Your task to perform on an android device: turn on javascript in the chrome app Image 0: 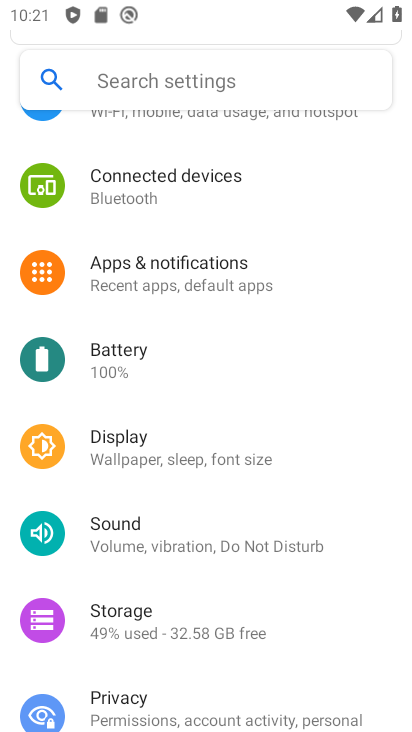
Step 0: press back button
Your task to perform on an android device: turn on javascript in the chrome app Image 1: 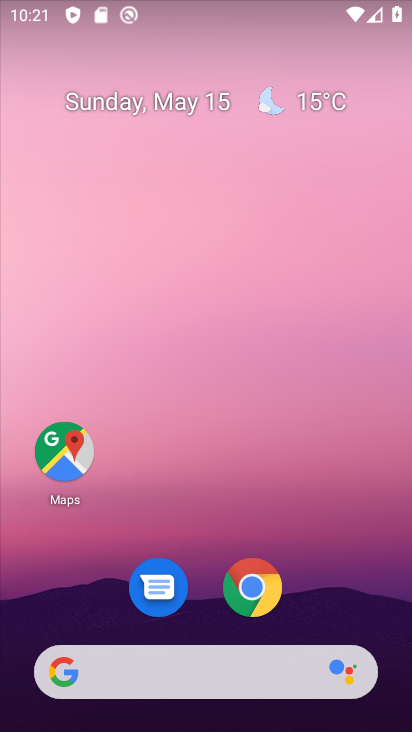
Step 1: click (275, 602)
Your task to perform on an android device: turn on javascript in the chrome app Image 2: 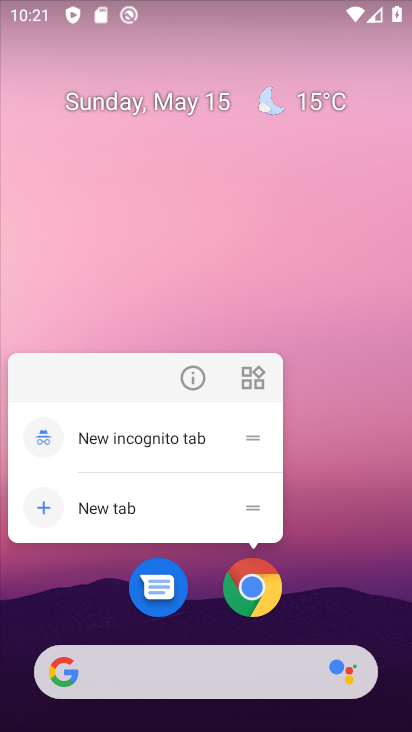
Step 2: click (256, 577)
Your task to perform on an android device: turn on javascript in the chrome app Image 3: 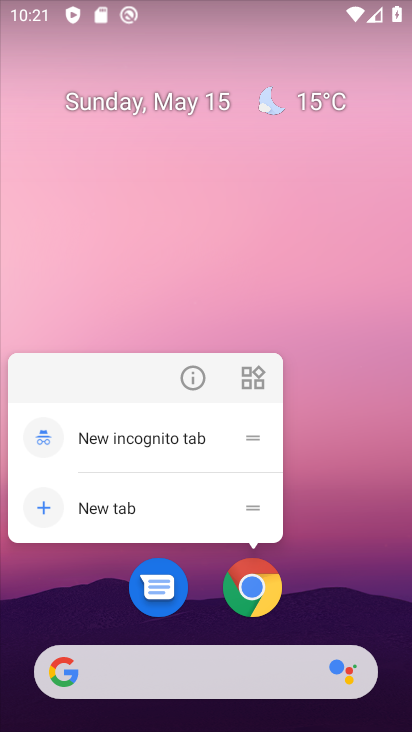
Step 3: click (249, 594)
Your task to perform on an android device: turn on javascript in the chrome app Image 4: 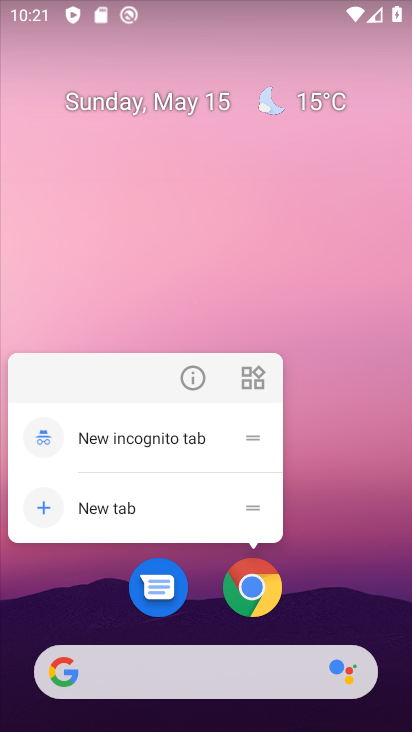
Step 4: click (248, 608)
Your task to perform on an android device: turn on javascript in the chrome app Image 5: 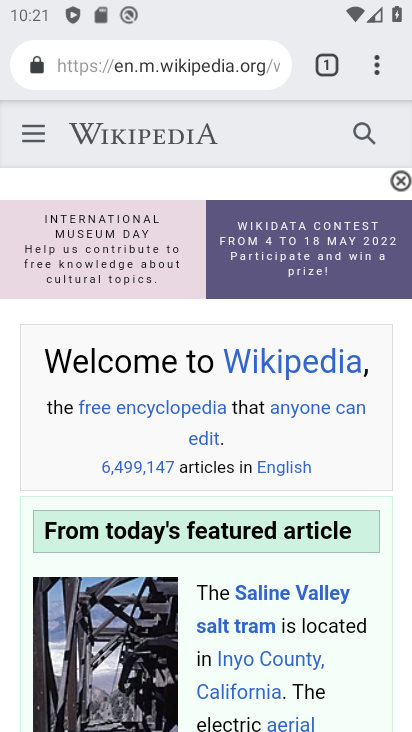
Step 5: drag from (381, 78) to (272, 661)
Your task to perform on an android device: turn on javascript in the chrome app Image 6: 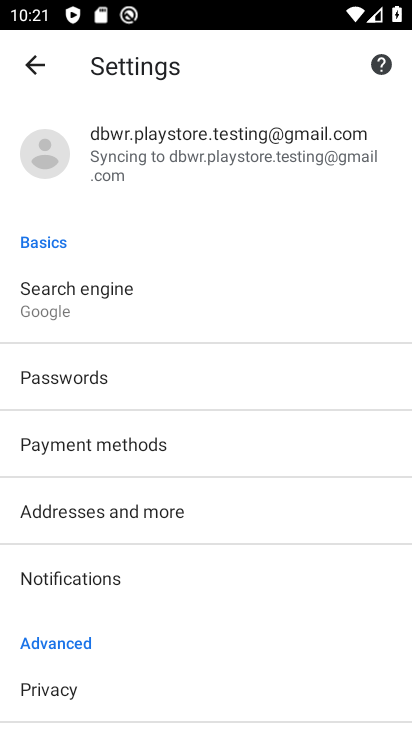
Step 6: drag from (199, 641) to (295, 274)
Your task to perform on an android device: turn on javascript in the chrome app Image 7: 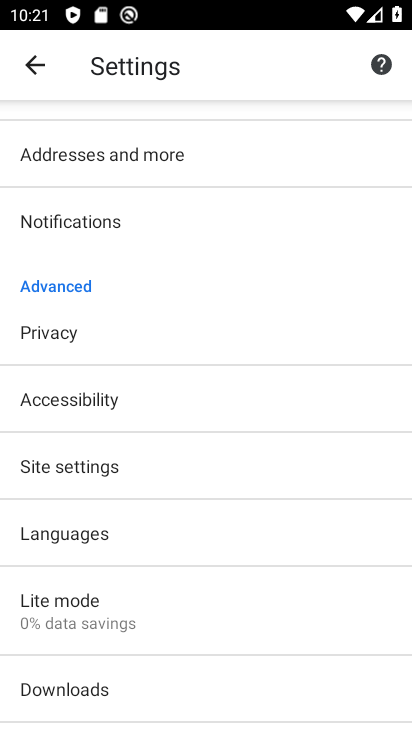
Step 7: drag from (214, 601) to (301, 296)
Your task to perform on an android device: turn on javascript in the chrome app Image 8: 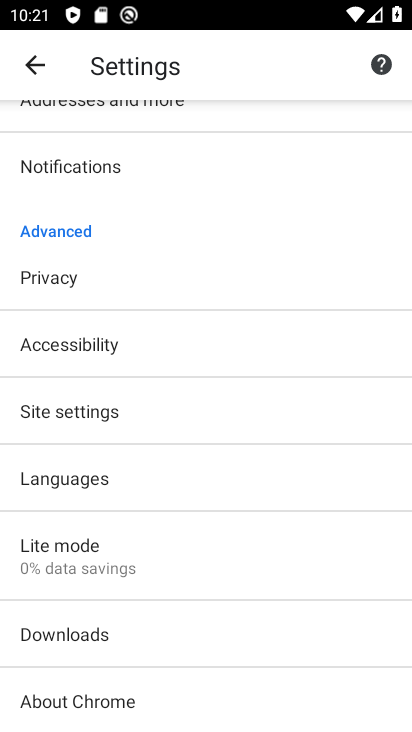
Step 8: click (170, 420)
Your task to perform on an android device: turn on javascript in the chrome app Image 9: 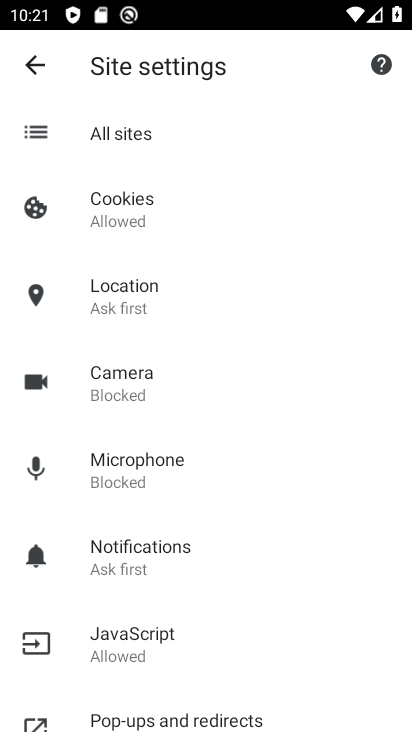
Step 9: click (195, 635)
Your task to perform on an android device: turn on javascript in the chrome app Image 10: 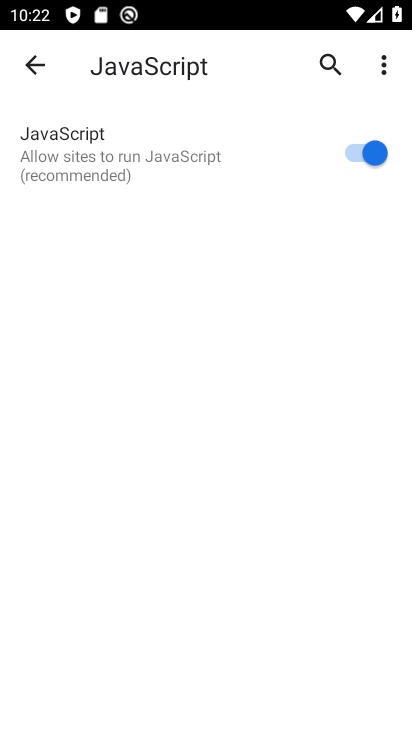
Step 10: task complete